Your task to perform on an android device: choose inbox layout in the gmail app Image 0: 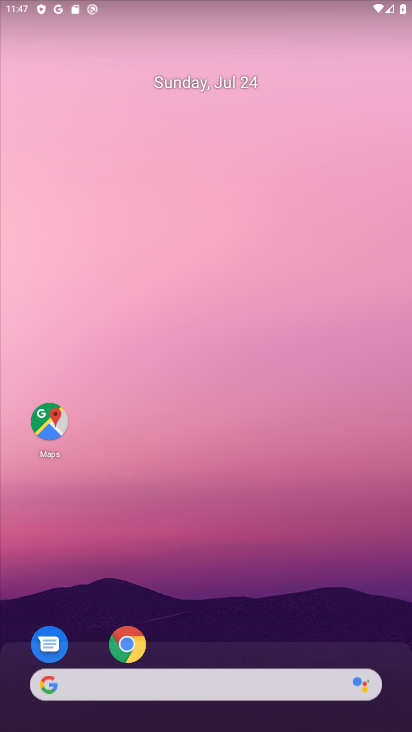
Step 0: drag from (202, 660) to (184, 18)
Your task to perform on an android device: choose inbox layout in the gmail app Image 1: 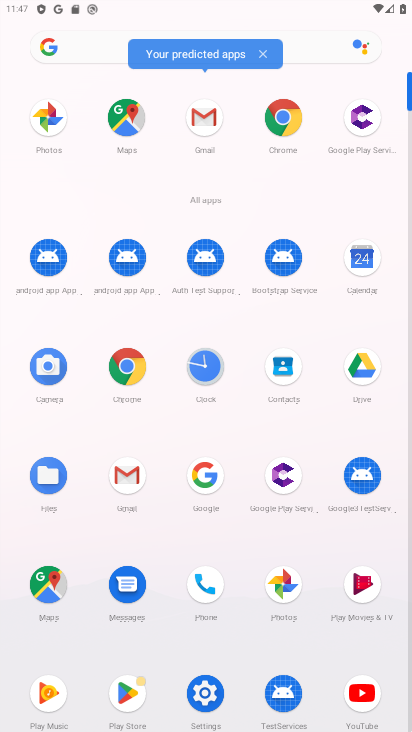
Step 1: click (199, 100)
Your task to perform on an android device: choose inbox layout in the gmail app Image 2: 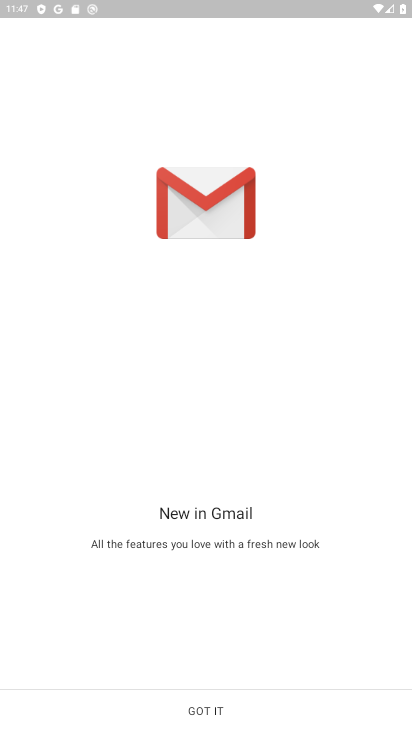
Step 2: click (159, 691)
Your task to perform on an android device: choose inbox layout in the gmail app Image 3: 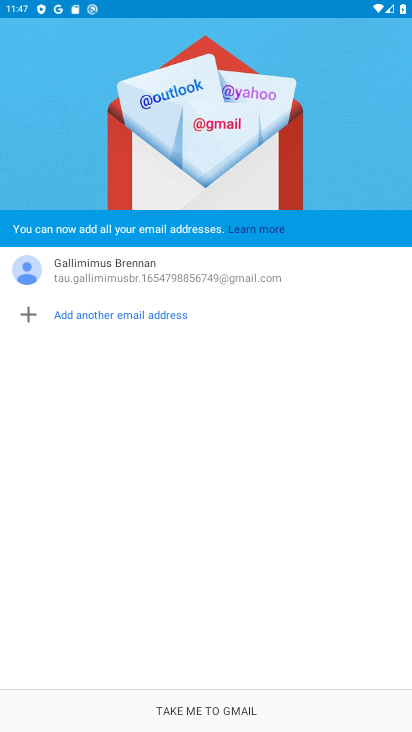
Step 3: click (138, 707)
Your task to perform on an android device: choose inbox layout in the gmail app Image 4: 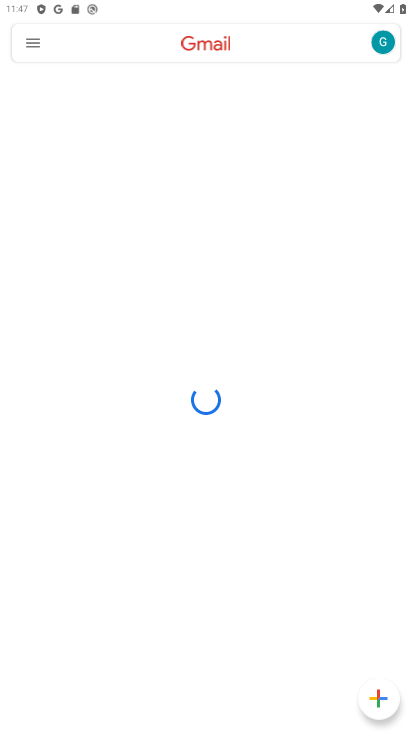
Step 4: click (29, 35)
Your task to perform on an android device: choose inbox layout in the gmail app Image 5: 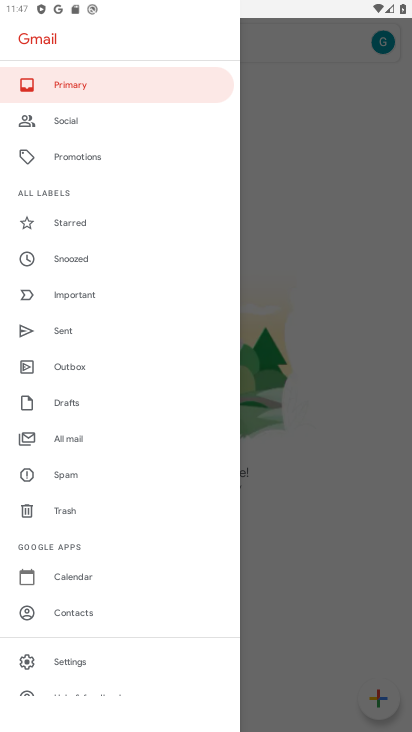
Step 5: click (78, 663)
Your task to perform on an android device: choose inbox layout in the gmail app Image 6: 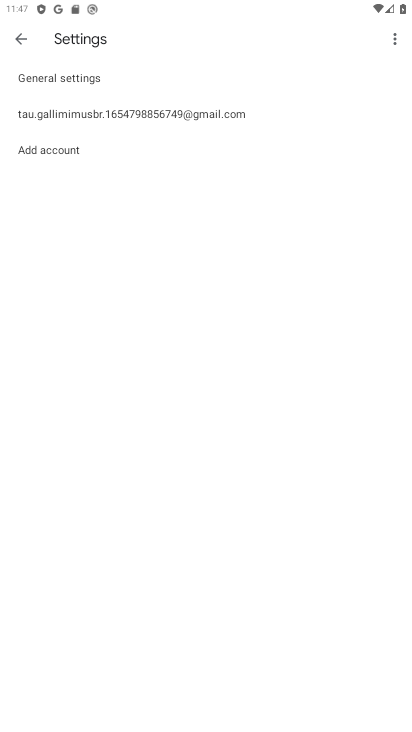
Step 6: click (274, 112)
Your task to perform on an android device: choose inbox layout in the gmail app Image 7: 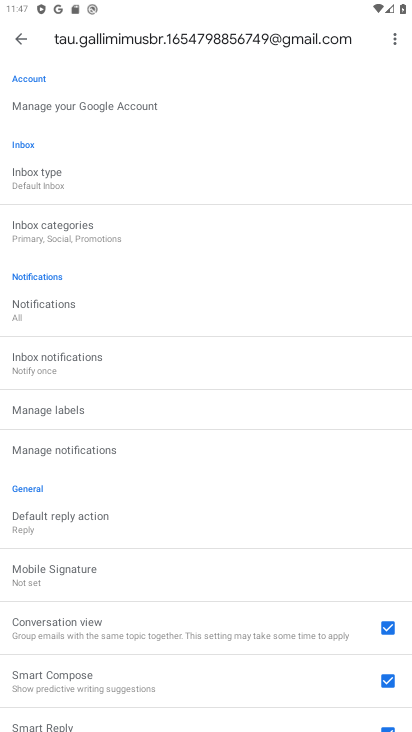
Step 7: click (89, 184)
Your task to perform on an android device: choose inbox layout in the gmail app Image 8: 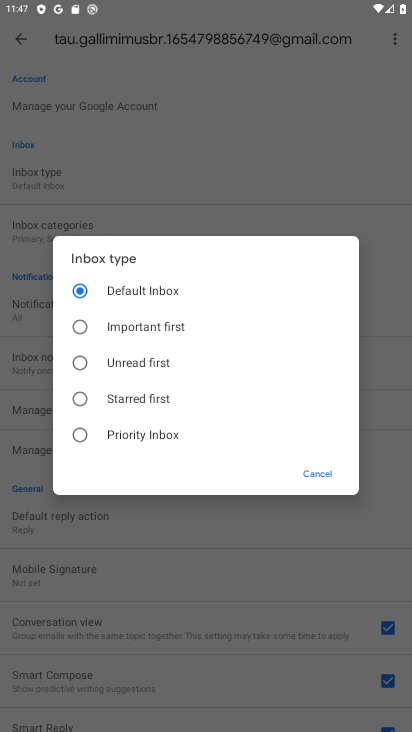
Step 8: click (131, 395)
Your task to perform on an android device: choose inbox layout in the gmail app Image 9: 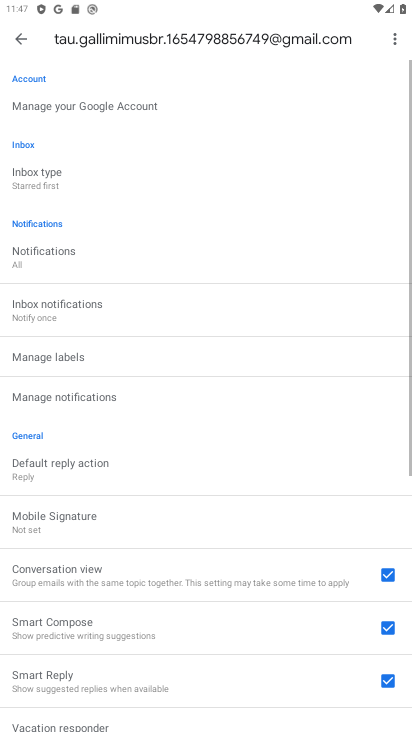
Step 9: task complete